Your task to perform on an android device: choose inbox layout in the gmail app Image 0: 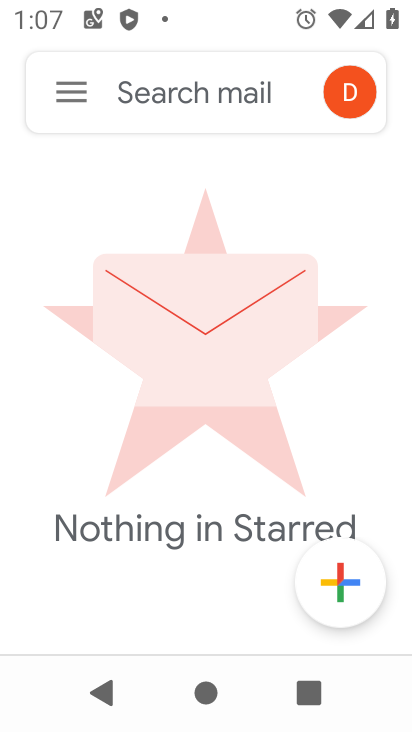
Step 0: press home button
Your task to perform on an android device: choose inbox layout in the gmail app Image 1: 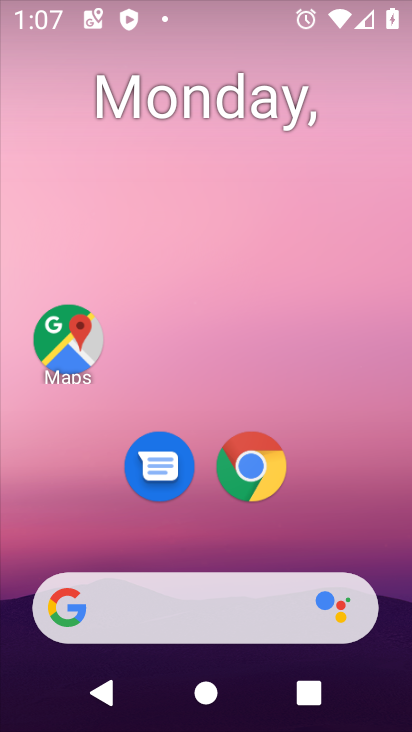
Step 1: drag from (389, 667) to (334, 60)
Your task to perform on an android device: choose inbox layout in the gmail app Image 2: 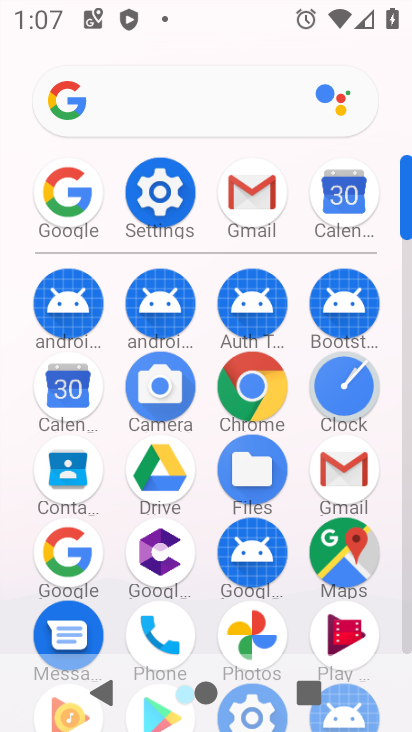
Step 2: click (335, 466)
Your task to perform on an android device: choose inbox layout in the gmail app Image 3: 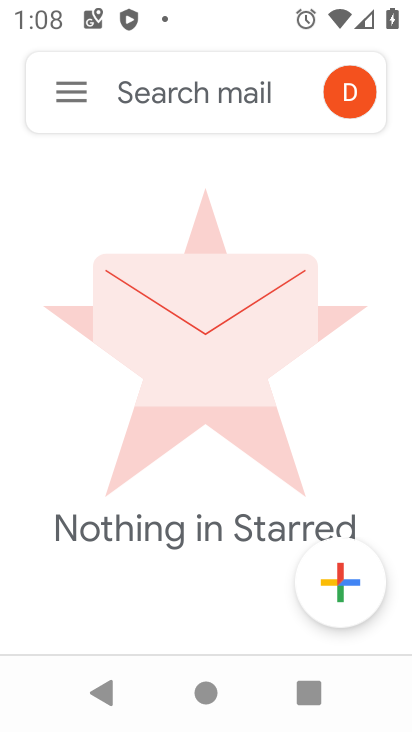
Step 3: task complete